Your task to perform on an android device: turn notification dots off Image 0: 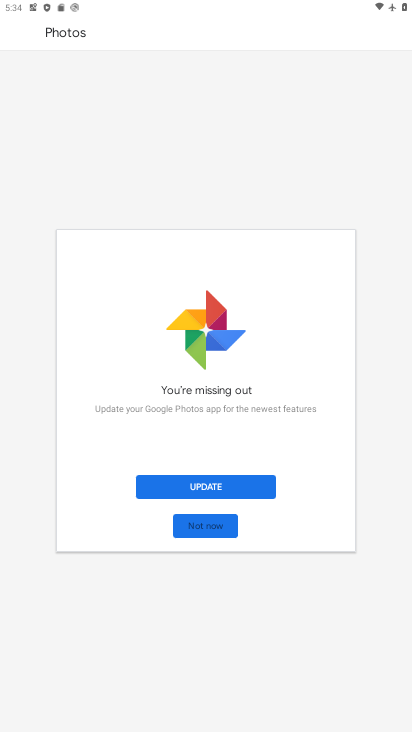
Step 0: press home button
Your task to perform on an android device: turn notification dots off Image 1: 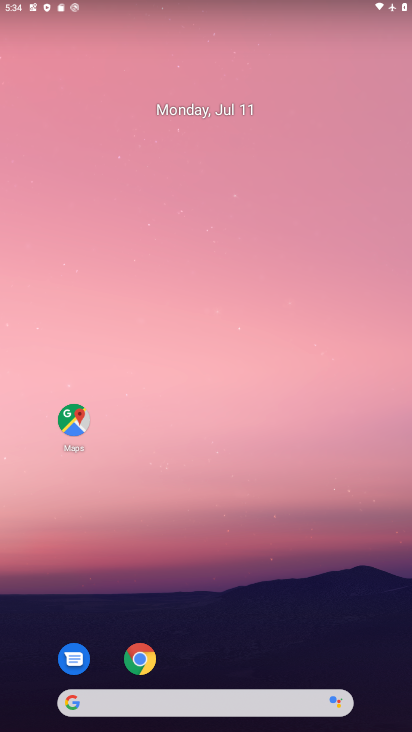
Step 1: drag from (382, 673) to (345, 66)
Your task to perform on an android device: turn notification dots off Image 2: 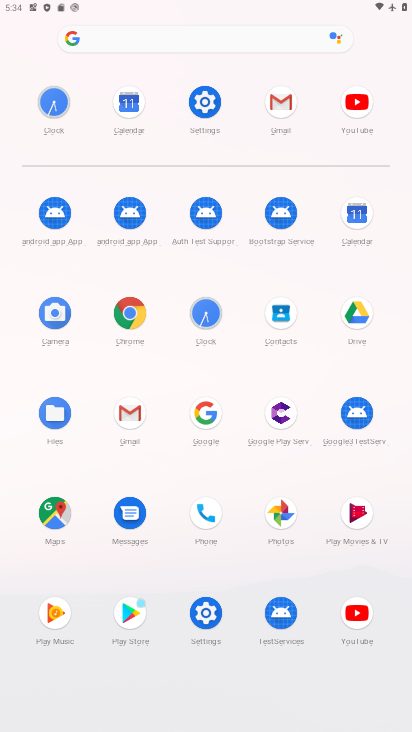
Step 2: click (205, 611)
Your task to perform on an android device: turn notification dots off Image 3: 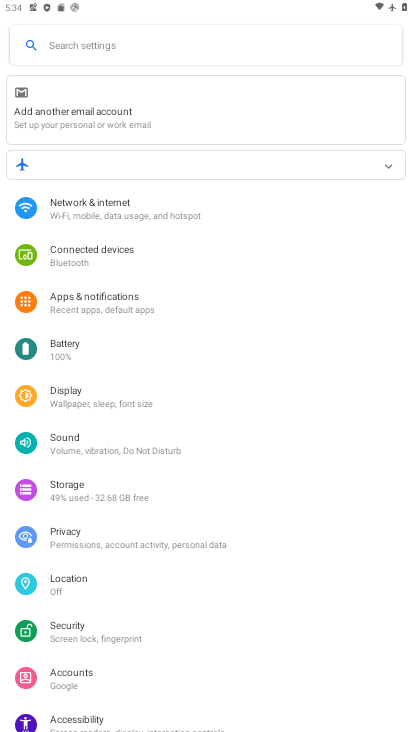
Step 3: click (87, 294)
Your task to perform on an android device: turn notification dots off Image 4: 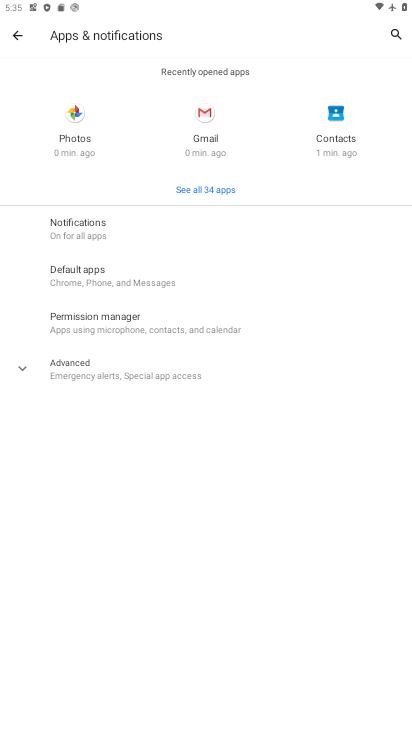
Step 4: click (65, 228)
Your task to perform on an android device: turn notification dots off Image 5: 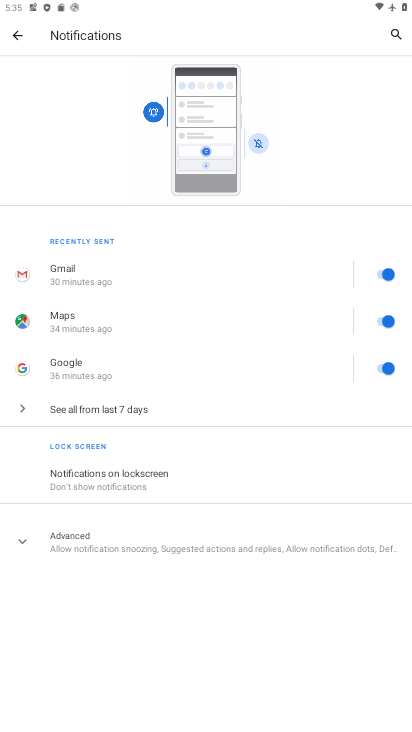
Step 5: click (19, 539)
Your task to perform on an android device: turn notification dots off Image 6: 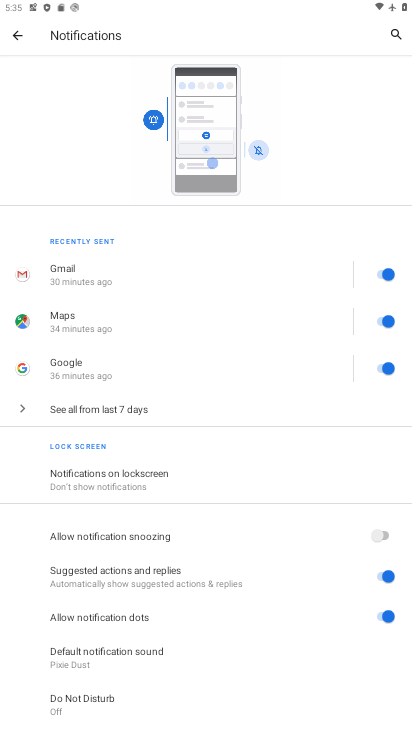
Step 6: click (381, 613)
Your task to perform on an android device: turn notification dots off Image 7: 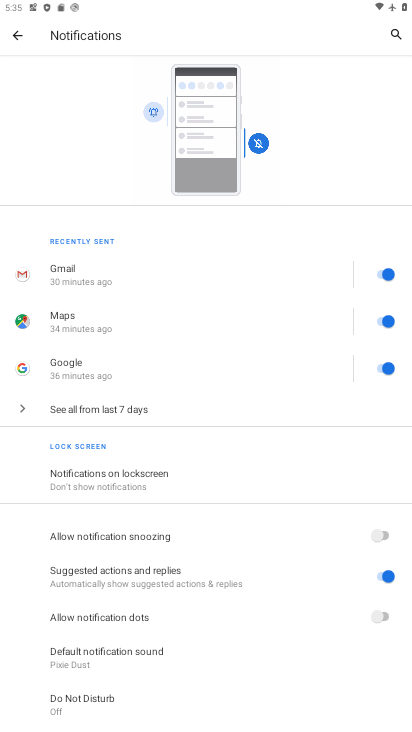
Step 7: task complete